Your task to perform on an android device: check android version Image 0: 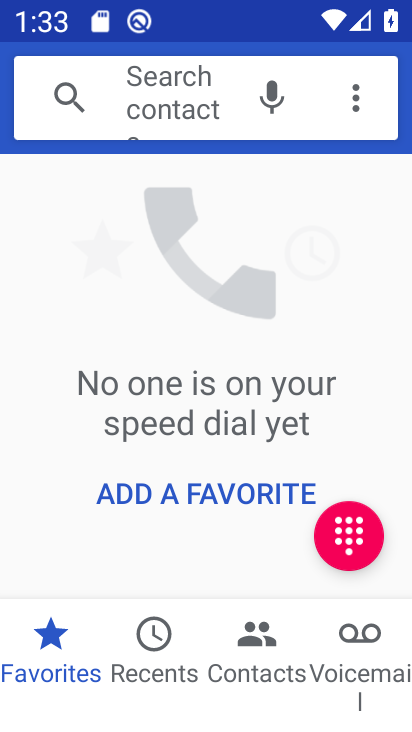
Step 0: press back button
Your task to perform on an android device: check android version Image 1: 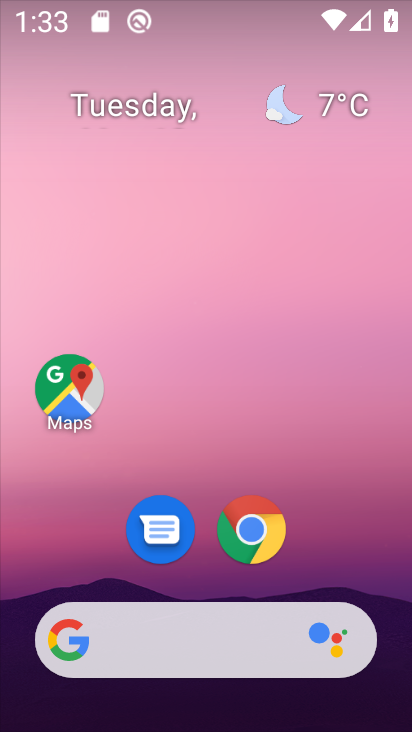
Step 1: drag from (335, 523) to (244, 41)
Your task to perform on an android device: check android version Image 2: 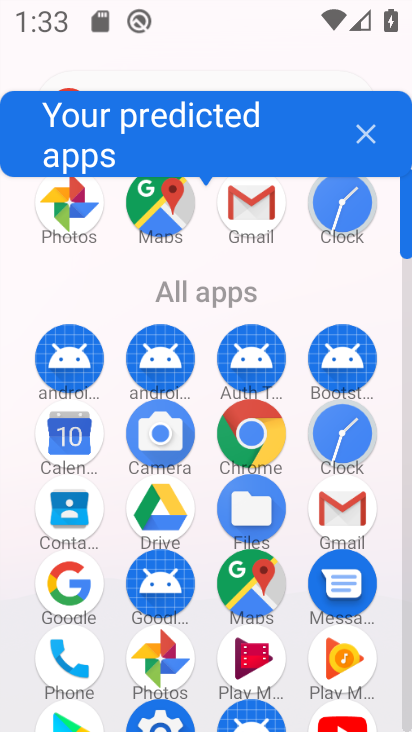
Step 2: drag from (113, 547) to (151, 260)
Your task to perform on an android device: check android version Image 3: 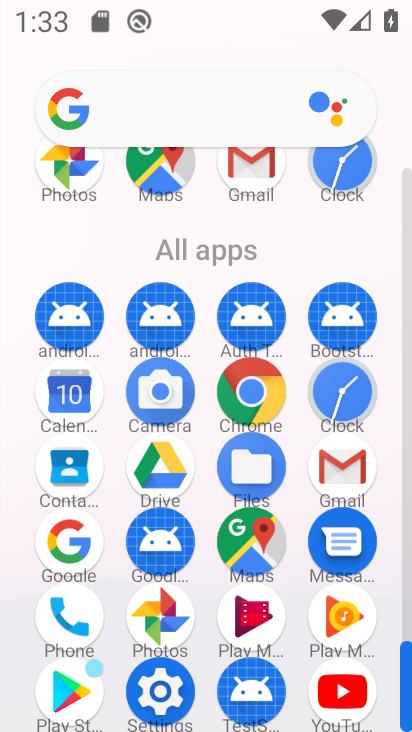
Step 3: click (160, 692)
Your task to perform on an android device: check android version Image 4: 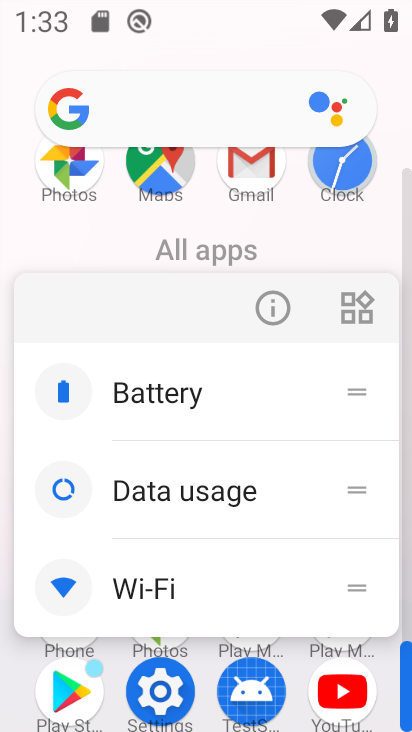
Step 4: click (160, 692)
Your task to perform on an android device: check android version Image 5: 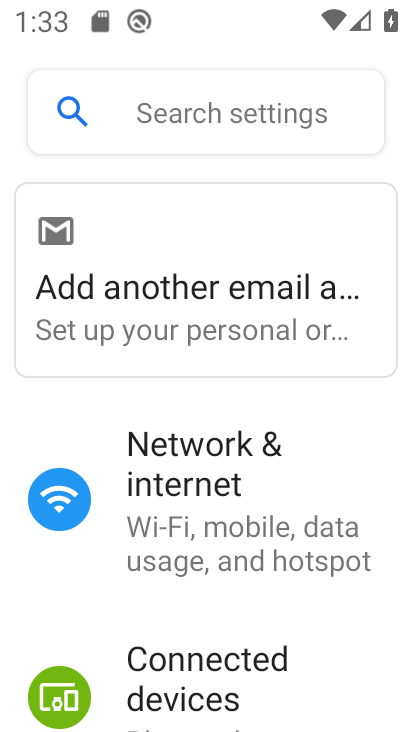
Step 5: drag from (204, 628) to (268, 365)
Your task to perform on an android device: check android version Image 6: 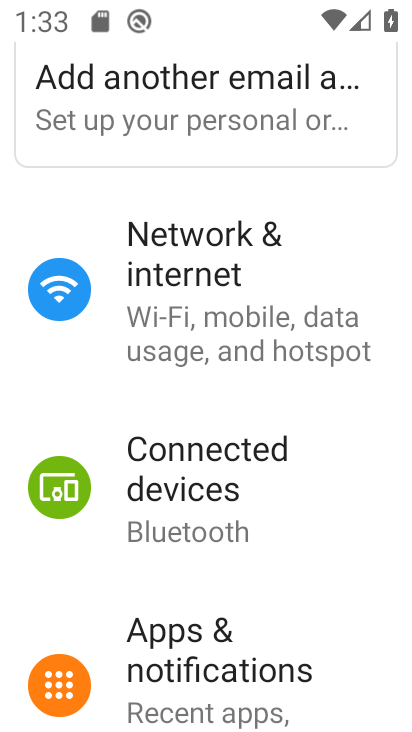
Step 6: drag from (203, 570) to (289, 377)
Your task to perform on an android device: check android version Image 7: 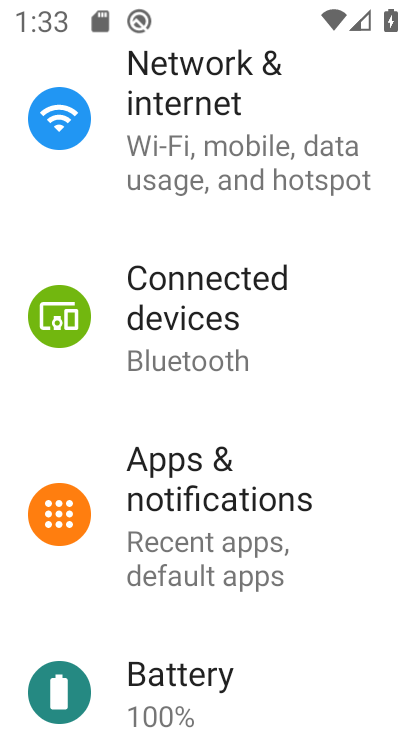
Step 7: drag from (203, 625) to (235, 395)
Your task to perform on an android device: check android version Image 8: 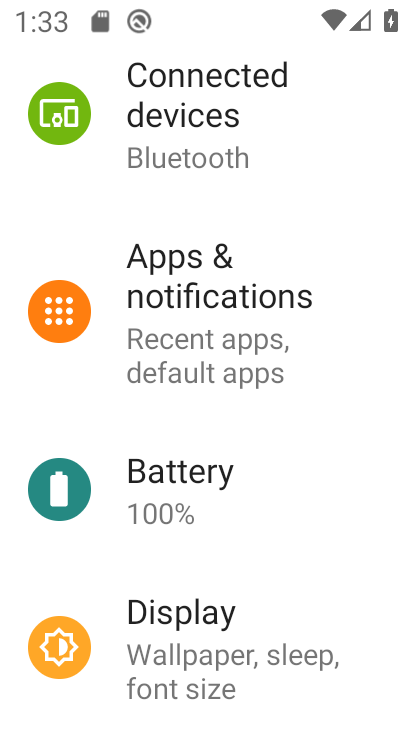
Step 8: drag from (182, 571) to (220, 347)
Your task to perform on an android device: check android version Image 9: 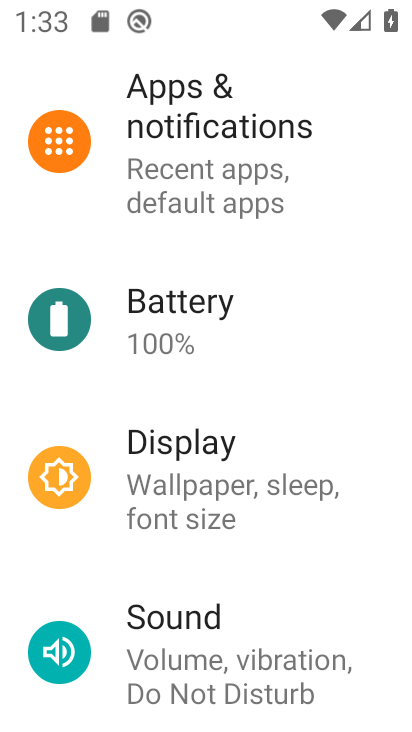
Step 9: drag from (151, 590) to (199, 360)
Your task to perform on an android device: check android version Image 10: 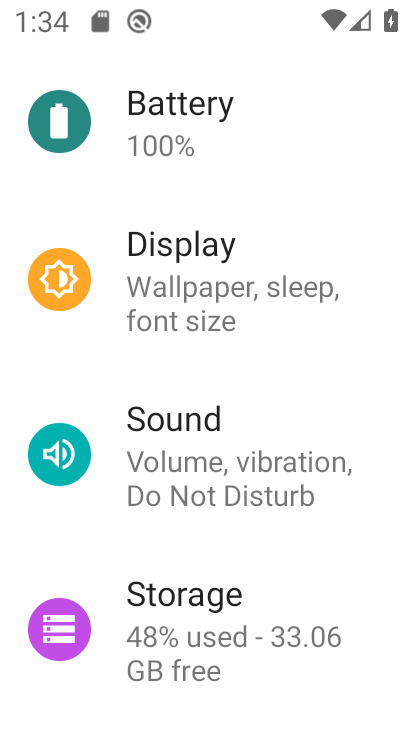
Step 10: drag from (150, 547) to (236, 353)
Your task to perform on an android device: check android version Image 11: 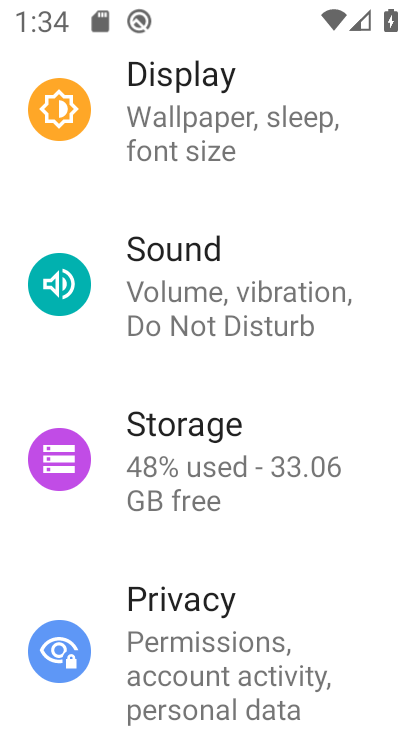
Step 11: drag from (160, 562) to (226, 360)
Your task to perform on an android device: check android version Image 12: 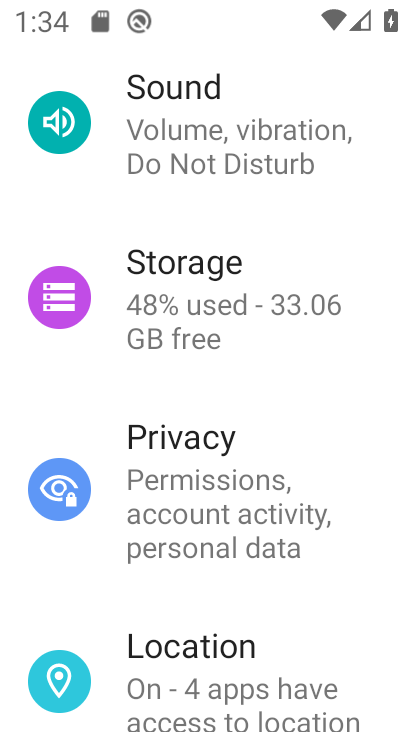
Step 12: drag from (178, 582) to (252, 385)
Your task to perform on an android device: check android version Image 13: 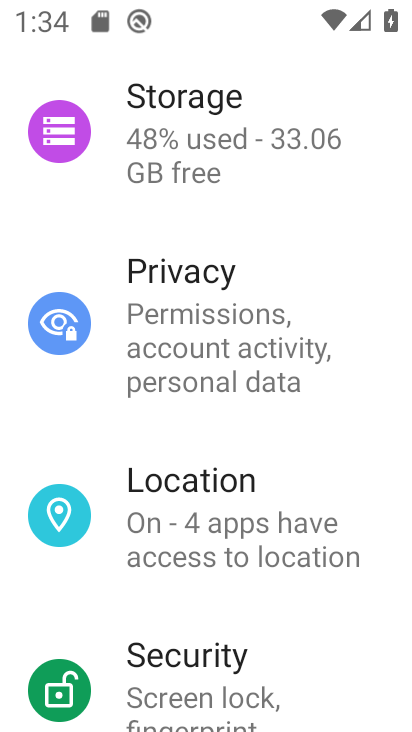
Step 13: drag from (136, 590) to (231, 373)
Your task to perform on an android device: check android version Image 14: 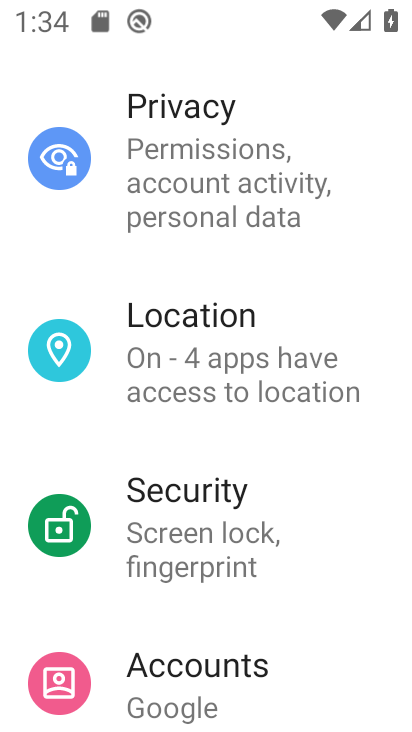
Step 14: drag from (129, 610) to (250, 341)
Your task to perform on an android device: check android version Image 15: 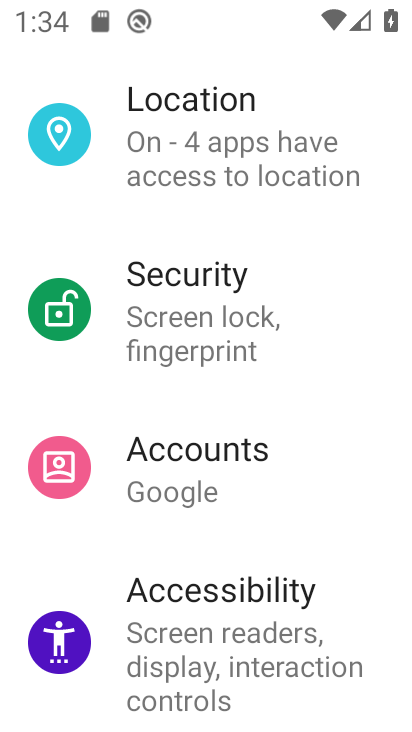
Step 15: drag from (114, 566) to (228, 308)
Your task to perform on an android device: check android version Image 16: 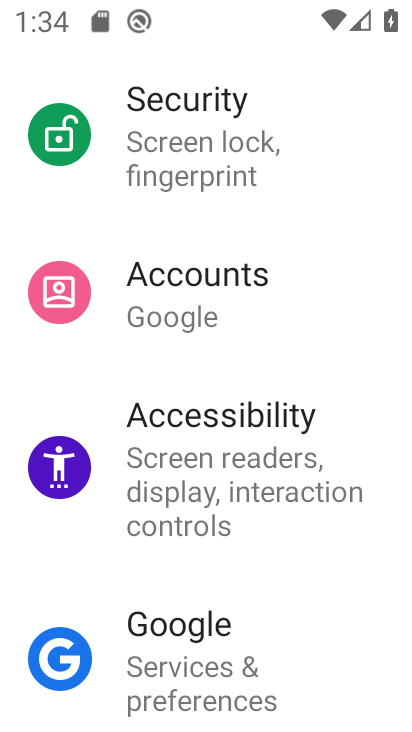
Step 16: drag from (116, 591) to (223, 318)
Your task to perform on an android device: check android version Image 17: 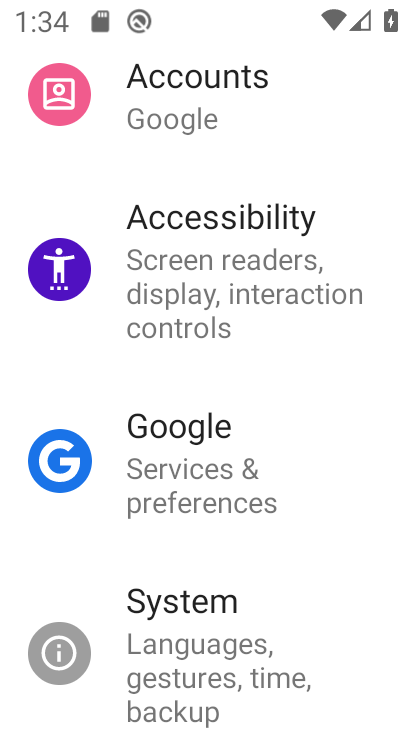
Step 17: drag from (79, 568) to (201, 230)
Your task to perform on an android device: check android version Image 18: 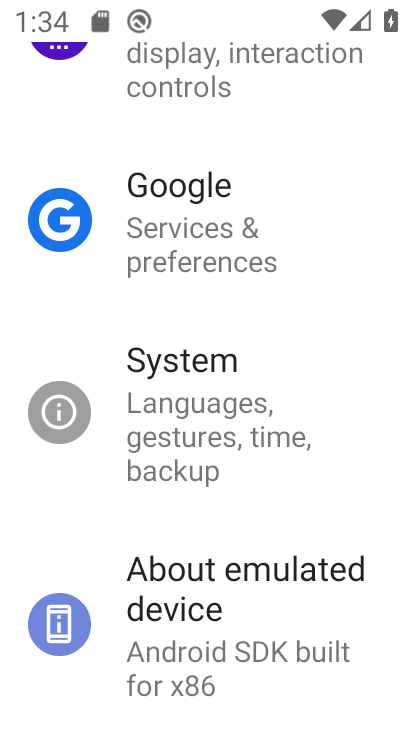
Step 18: click (173, 564)
Your task to perform on an android device: check android version Image 19: 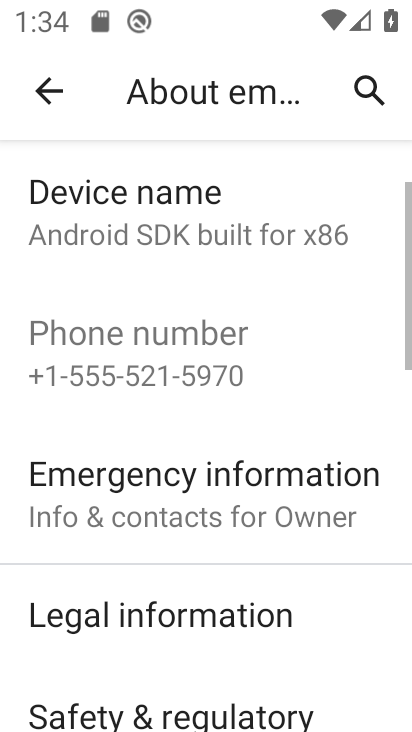
Step 19: drag from (148, 574) to (223, 298)
Your task to perform on an android device: check android version Image 20: 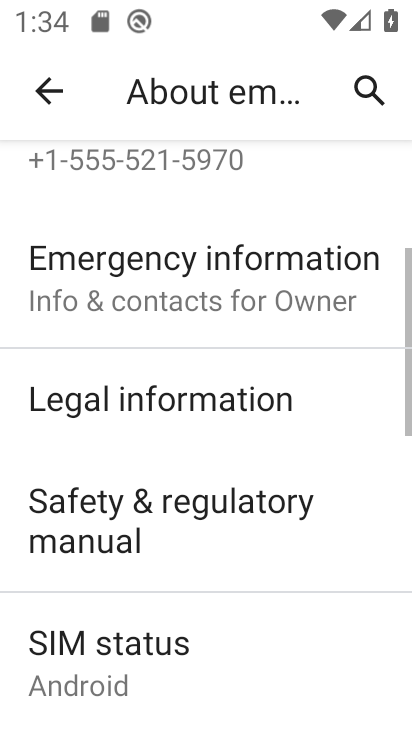
Step 20: drag from (151, 582) to (214, 402)
Your task to perform on an android device: check android version Image 21: 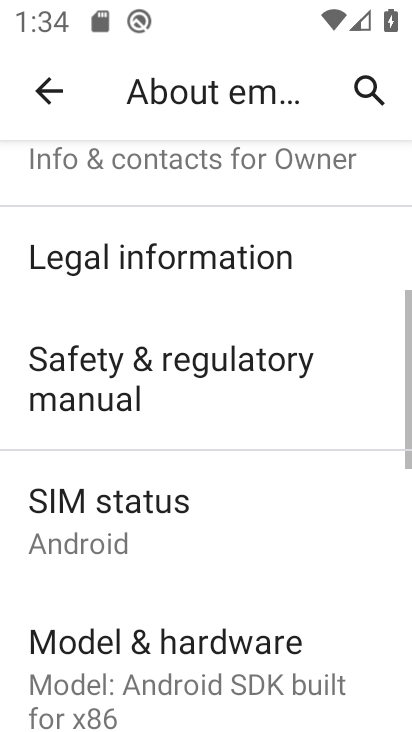
Step 21: drag from (148, 565) to (250, 379)
Your task to perform on an android device: check android version Image 22: 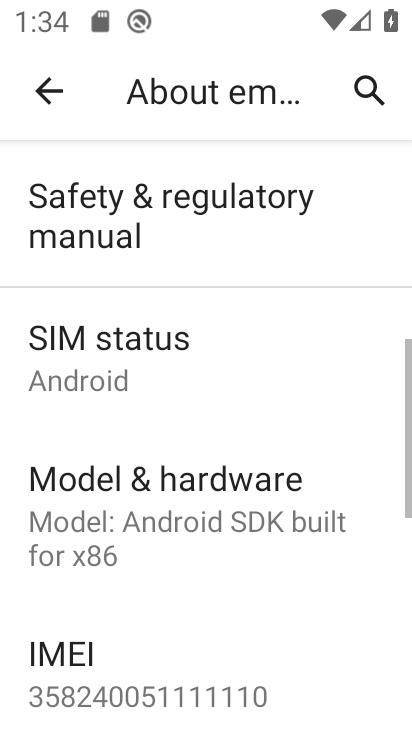
Step 22: drag from (190, 571) to (243, 379)
Your task to perform on an android device: check android version Image 23: 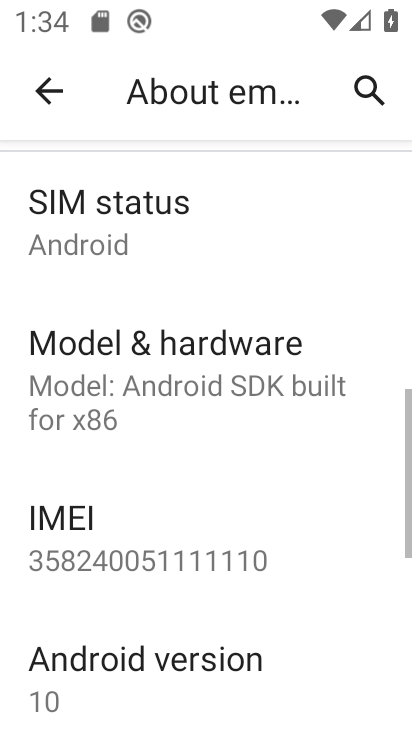
Step 23: drag from (134, 615) to (210, 419)
Your task to perform on an android device: check android version Image 24: 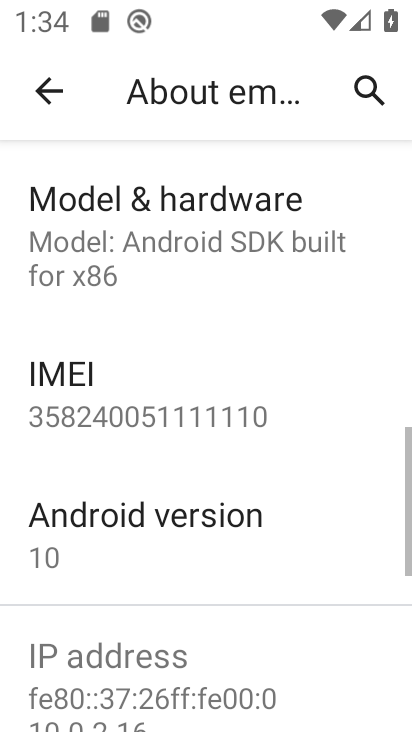
Step 24: click (168, 515)
Your task to perform on an android device: check android version Image 25: 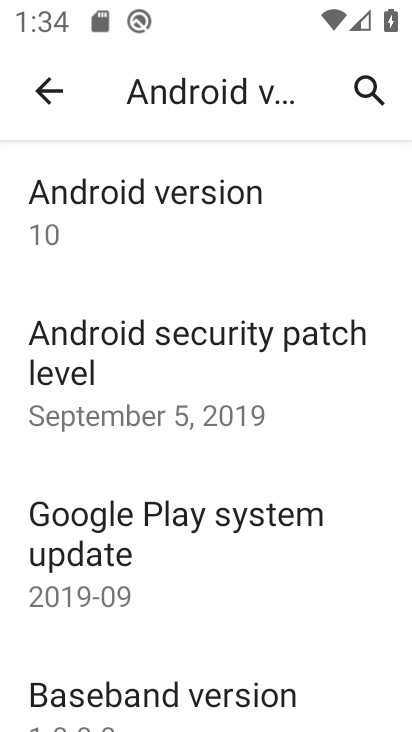
Step 25: task complete